Your task to perform on an android device: Open display settings Image 0: 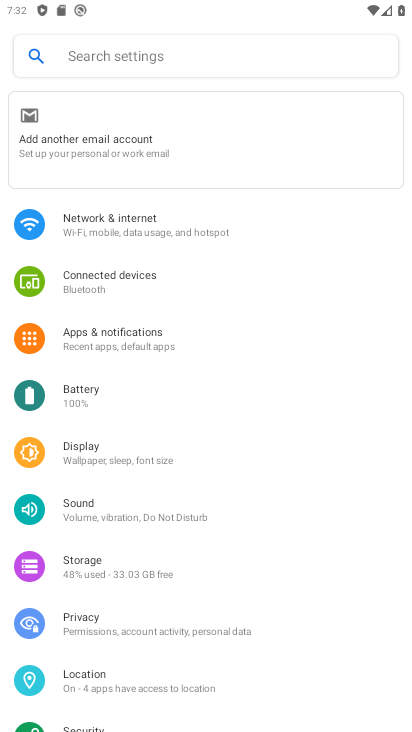
Step 0: click (129, 452)
Your task to perform on an android device: Open display settings Image 1: 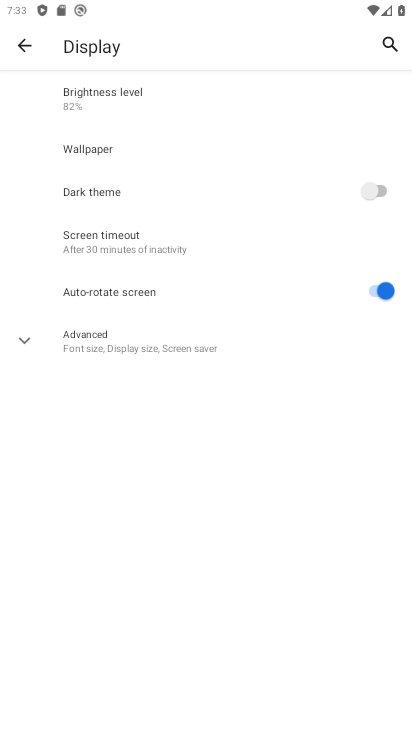
Step 1: task complete